Your task to perform on an android device: Go to internet settings Image 0: 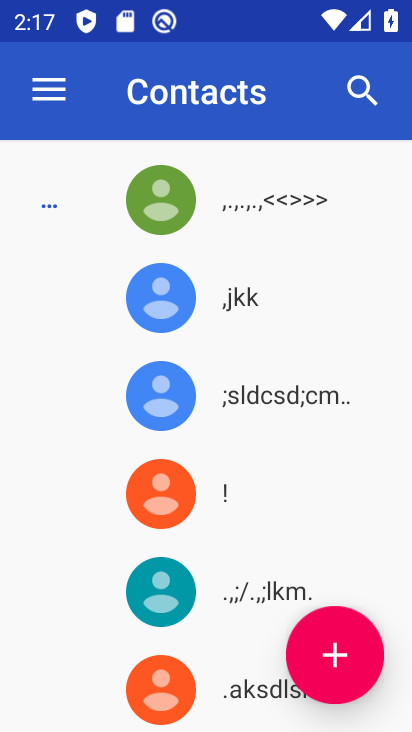
Step 0: press home button
Your task to perform on an android device: Go to internet settings Image 1: 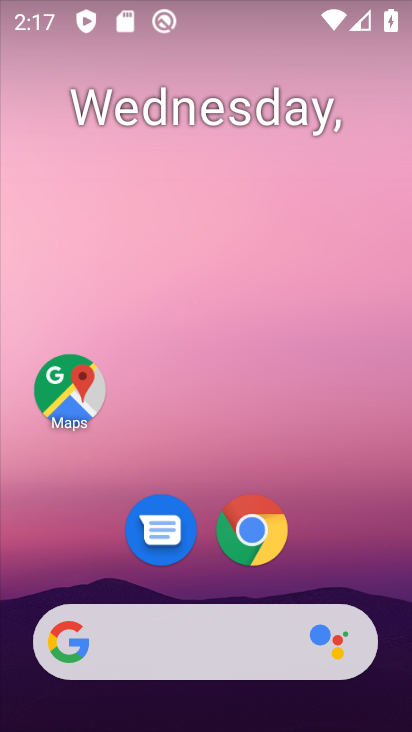
Step 1: drag from (200, 623) to (174, 200)
Your task to perform on an android device: Go to internet settings Image 2: 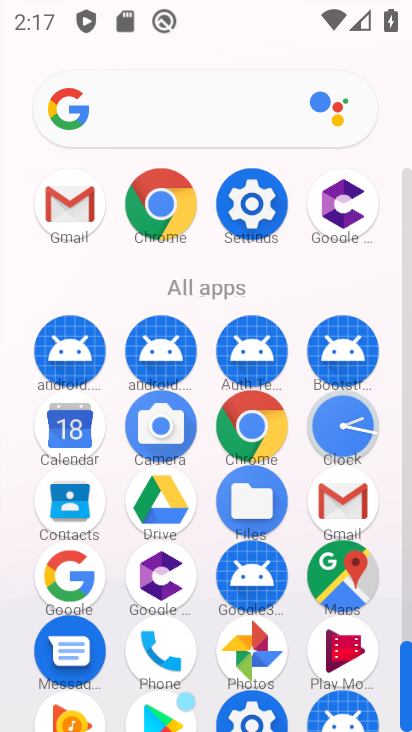
Step 2: click (236, 219)
Your task to perform on an android device: Go to internet settings Image 3: 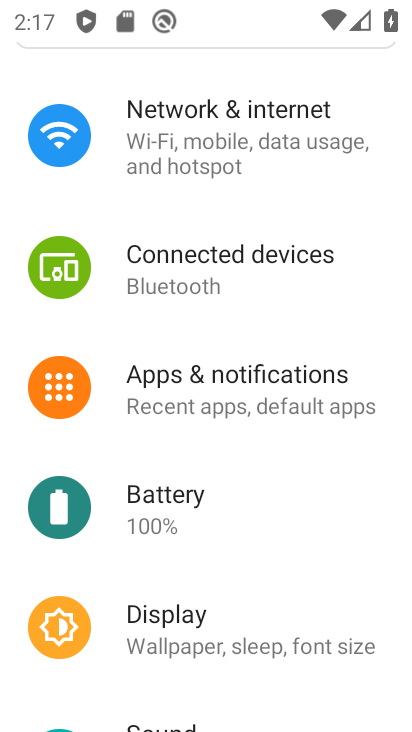
Step 3: click (215, 122)
Your task to perform on an android device: Go to internet settings Image 4: 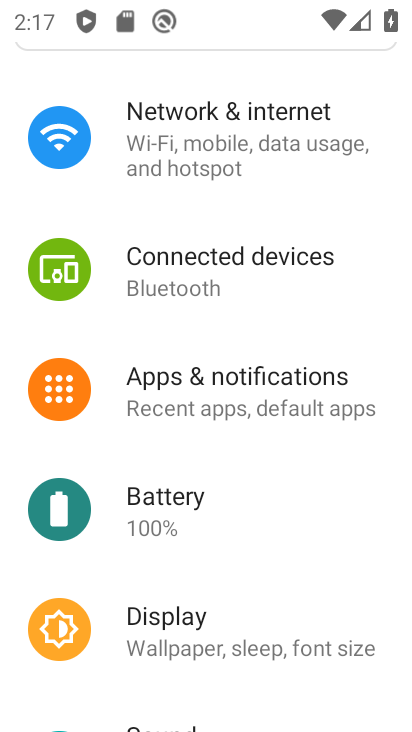
Step 4: click (212, 144)
Your task to perform on an android device: Go to internet settings Image 5: 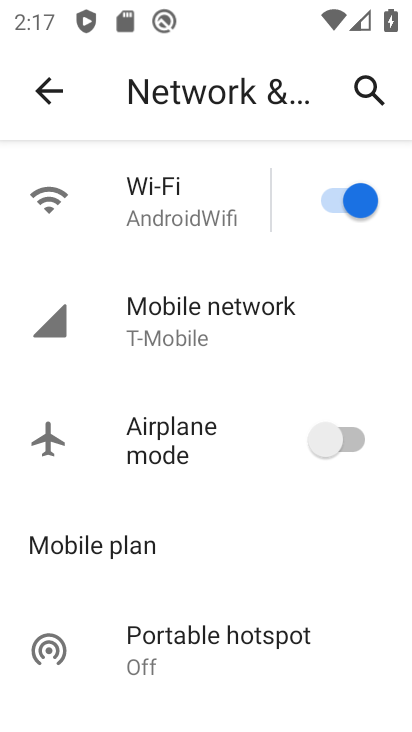
Step 5: task complete